Your task to perform on an android device: turn smart compose on in the gmail app Image 0: 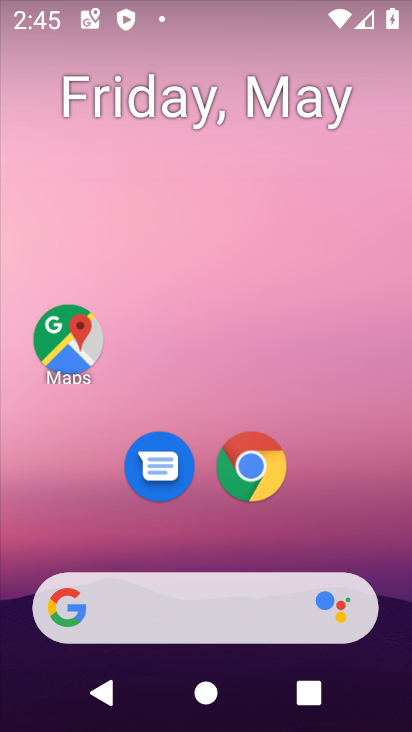
Step 0: drag from (199, 556) to (353, 2)
Your task to perform on an android device: turn smart compose on in the gmail app Image 1: 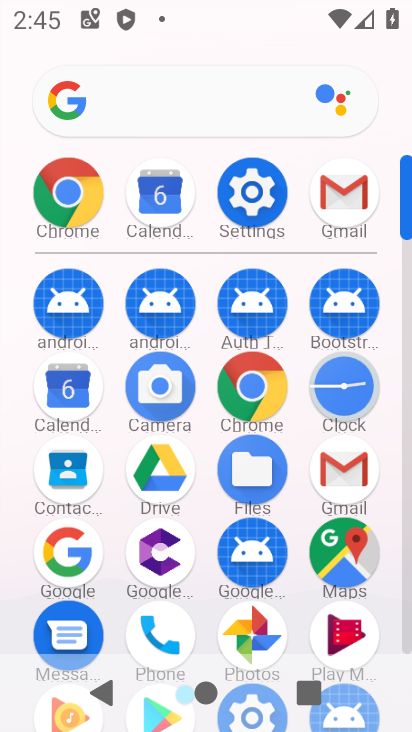
Step 1: click (340, 191)
Your task to perform on an android device: turn smart compose on in the gmail app Image 2: 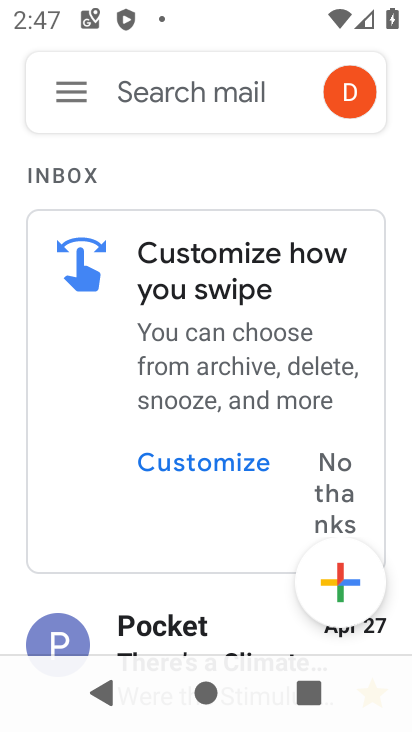
Step 2: click (71, 95)
Your task to perform on an android device: turn smart compose on in the gmail app Image 3: 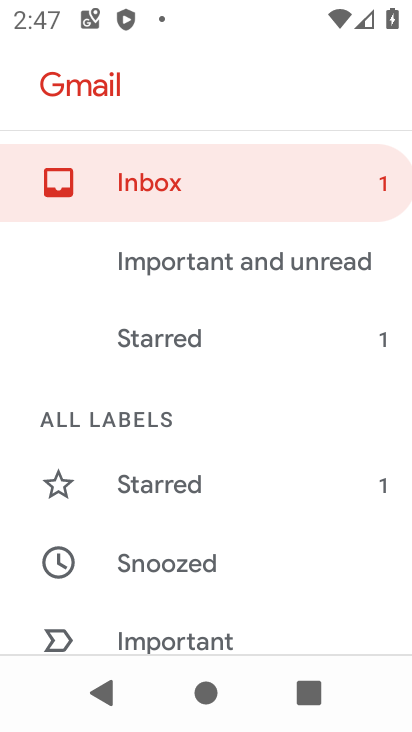
Step 3: drag from (157, 617) to (321, 93)
Your task to perform on an android device: turn smart compose on in the gmail app Image 4: 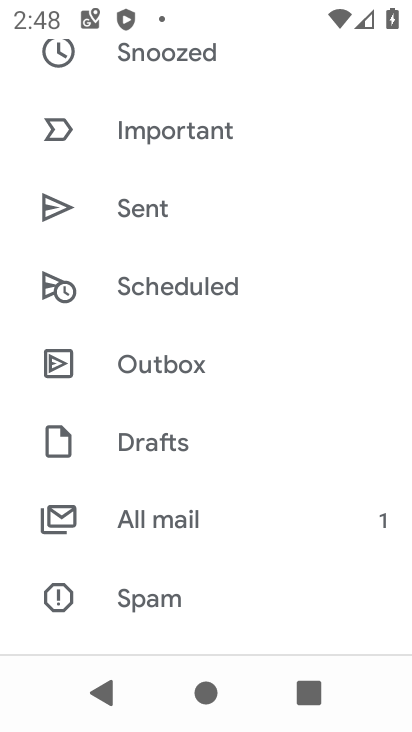
Step 4: drag from (181, 606) to (318, 88)
Your task to perform on an android device: turn smart compose on in the gmail app Image 5: 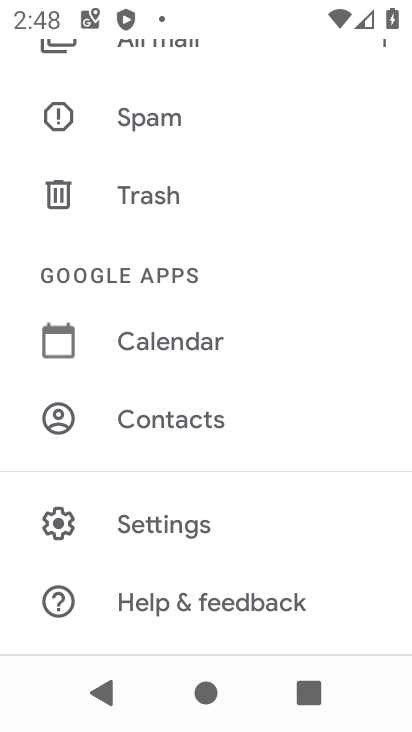
Step 5: click (166, 526)
Your task to perform on an android device: turn smart compose on in the gmail app Image 6: 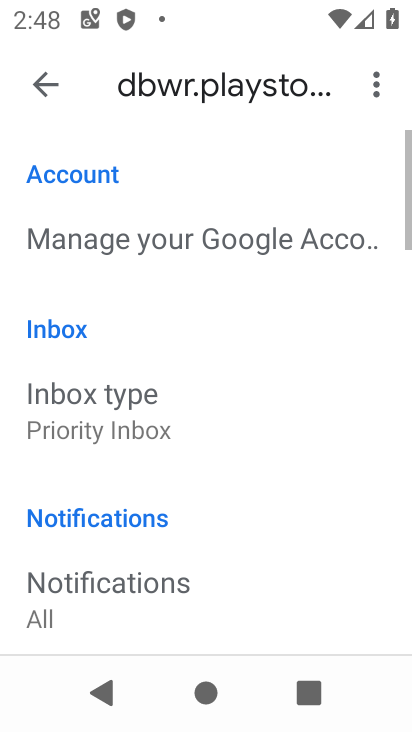
Step 6: task complete